Your task to perform on an android device: turn off notifications in google photos Image 0: 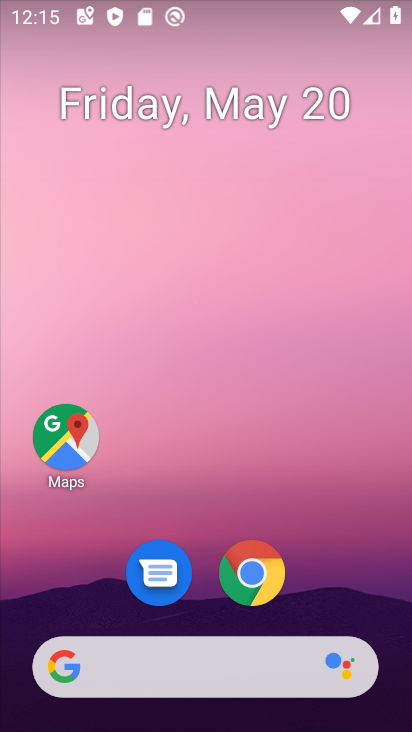
Step 0: drag from (339, 583) to (293, 25)
Your task to perform on an android device: turn off notifications in google photos Image 1: 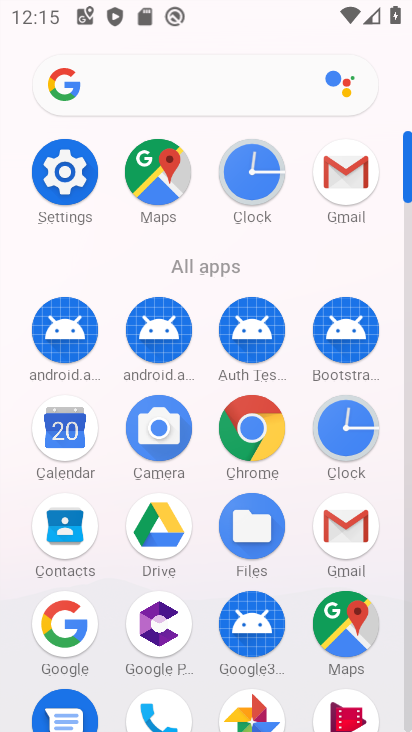
Step 1: drag from (301, 574) to (303, 183)
Your task to perform on an android device: turn off notifications in google photos Image 2: 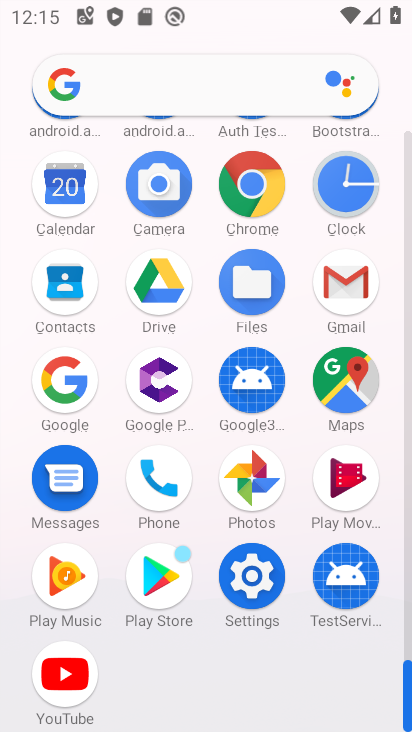
Step 2: click (246, 480)
Your task to perform on an android device: turn off notifications in google photos Image 3: 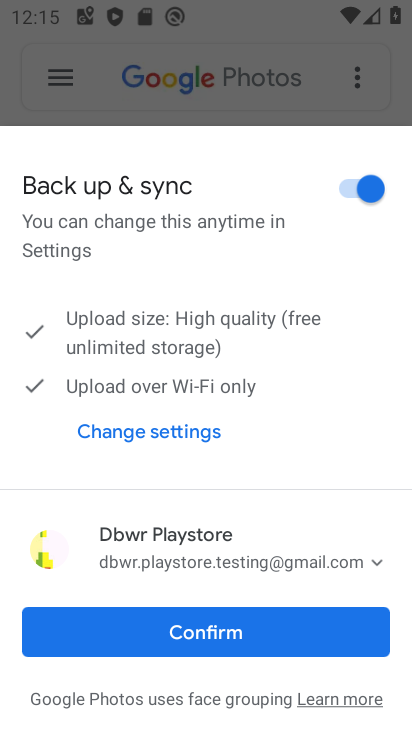
Step 3: click (246, 635)
Your task to perform on an android device: turn off notifications in google photos Image 4: 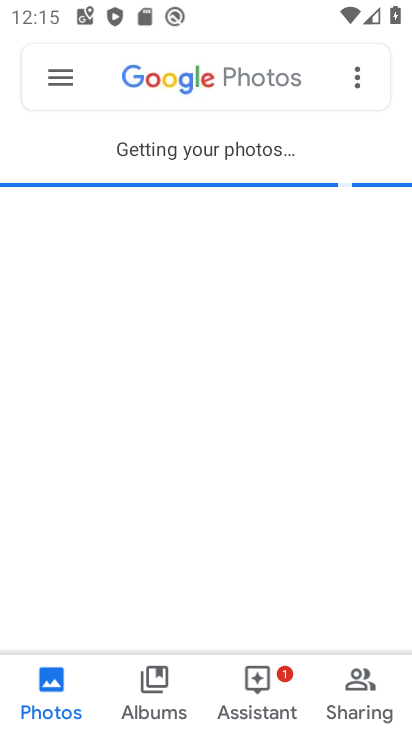
Step 4: click (55, 76)
Your task to perform on an android device: turn off notifications in google photos Image 5: 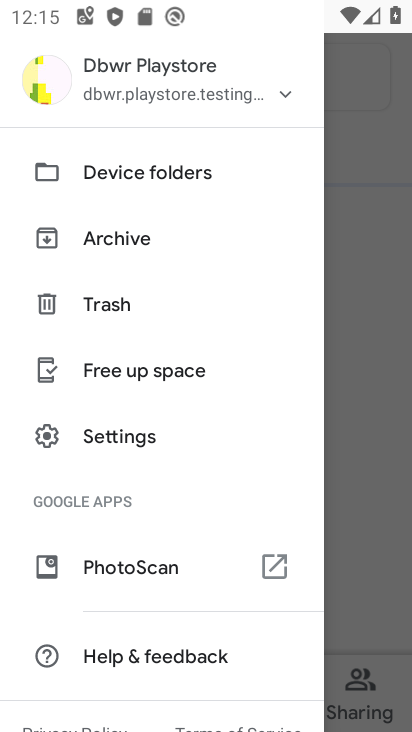
Step 5: click (157, 426)
Your task to perform on an android device: turn off notifications in google photos Image 6: 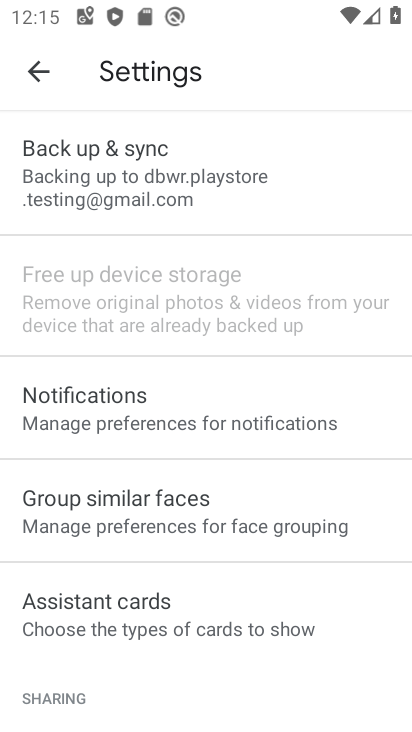
Step 6: click (167, 424)
Your task to perform on an android device: turn off notifications in google photos Image 7: 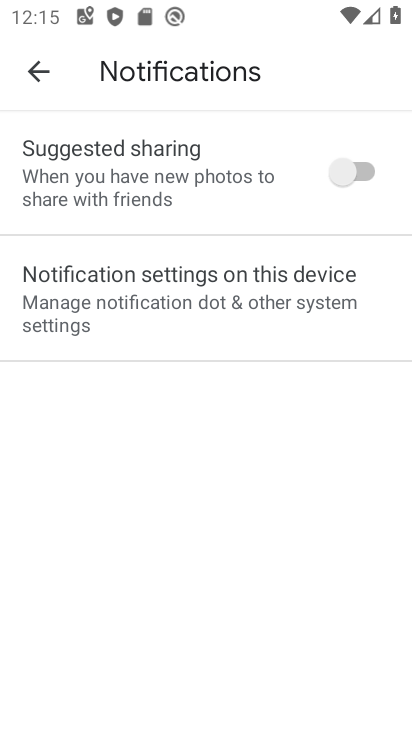
Step 7: click (160, 292)
Your task to perform on an android device: turn off notifications in google photos Image 8: 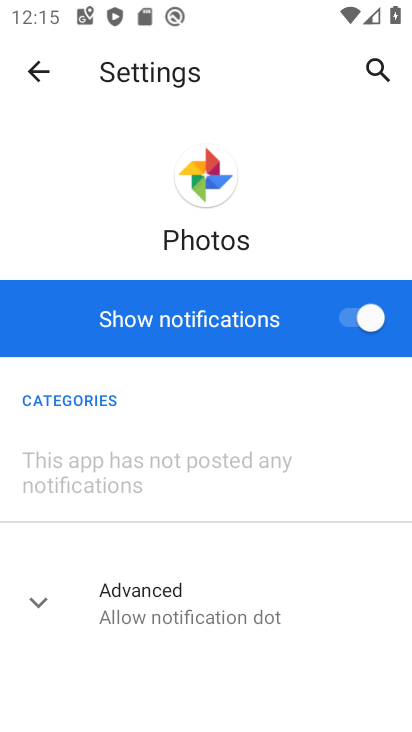
Step 8: click (349, 305)
Your task to perform on an android device: turn off notifications in google photos Image 9: 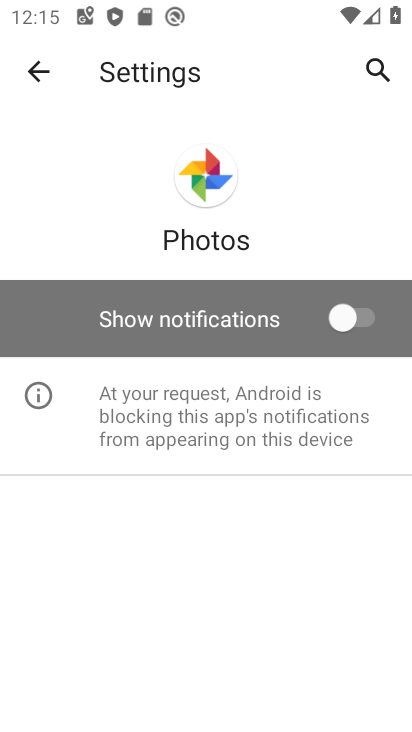
Step 9: task complete